Your task to perform on an android device: open a bookmark in the chrome app Image 0: 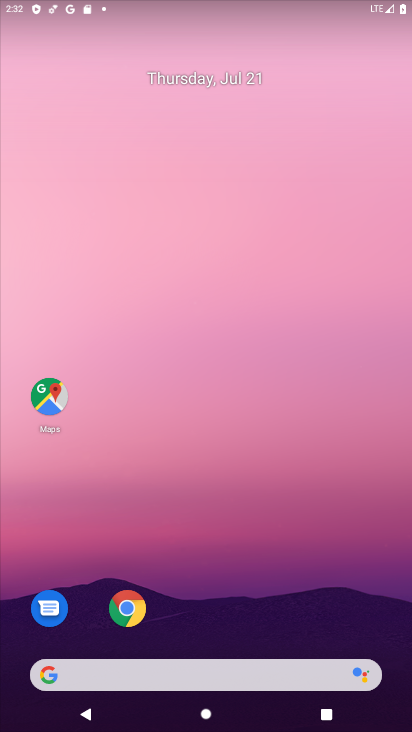
Step 0: drag from (182, 648) to (152, 27)
Your task to perform on an android device: open a bookmark in the chrome app Image 1: 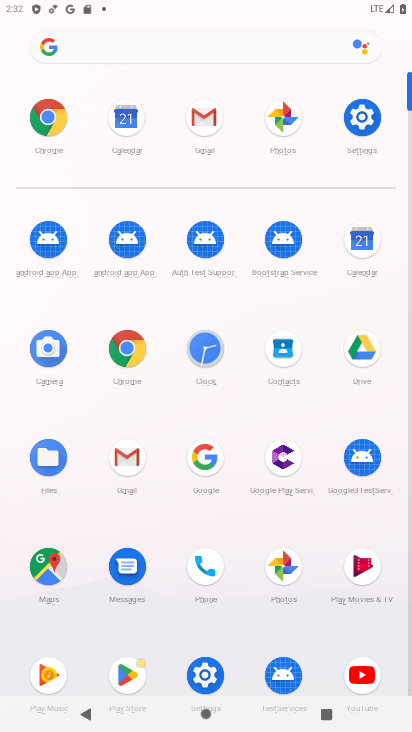
Step 1: click (120, 351)
Your task to perform on an android device: open a bookmark in the chrome app Image 2: 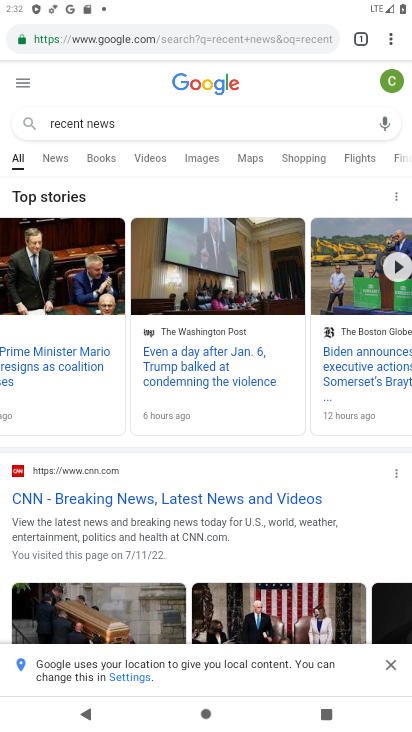
Step 2: task complete